Your task to perform on an android device: set an alarm Image 0: 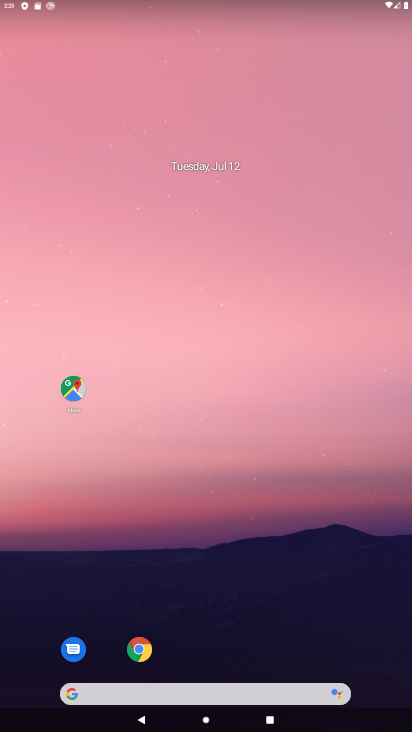
Step 0: drag from (217, 571) to (247, 238)
Your task to perform on an android device: set an alarm Image 1: 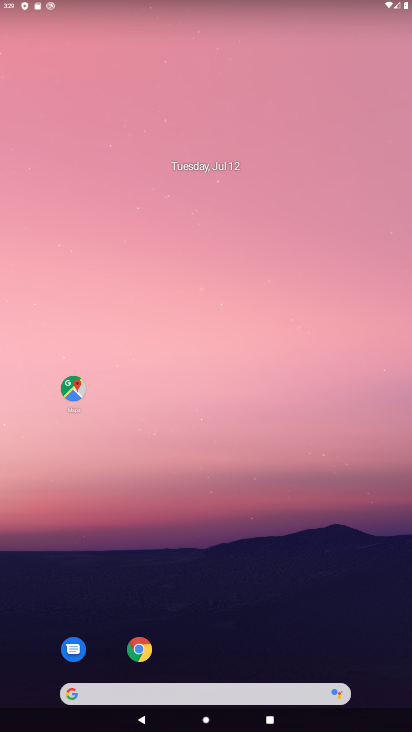
Step 1: drag from (201, 687) to (194, 133)
Your task to perform on an android device: set an alarm Image 2: 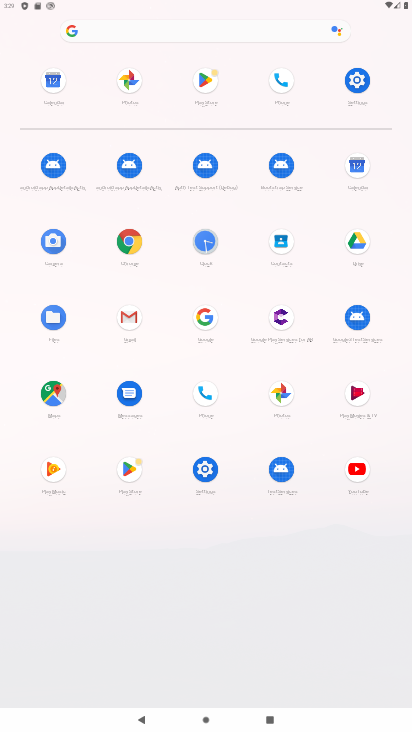
Step 2: click (199, 246)
Your task to perform on an android device: set an alarm Image 3: 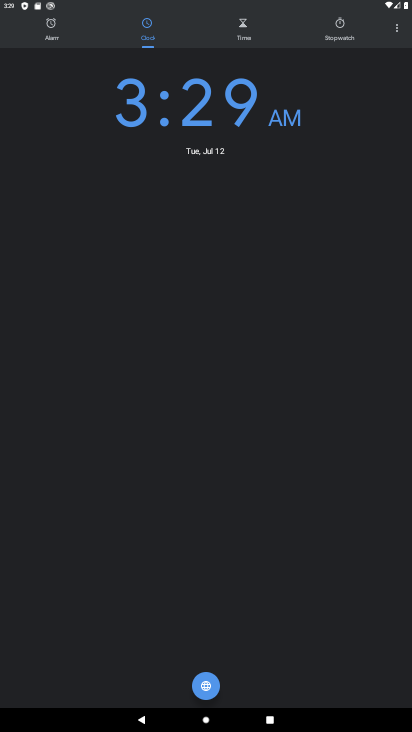
Step 3: click (59, 37)
Your task to perform on an android device: set an alarm Image 4: 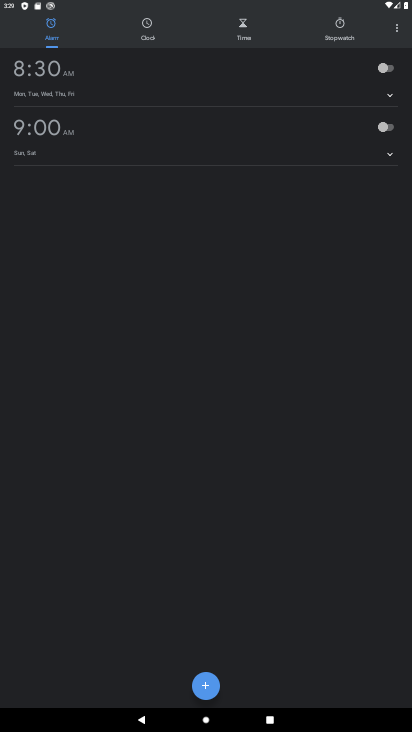
Step 4: click (213, 683)
Your task to perform on an android device: set an alarm Image 5: 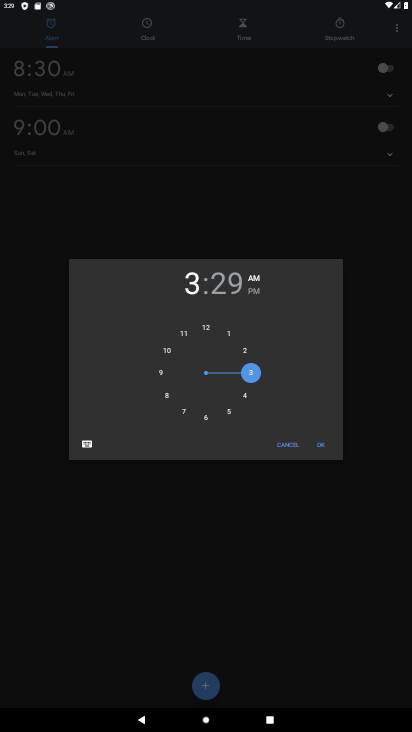
Step 5: click (187, 332)
Your task to perform on an android device: set an alarm Image 6: 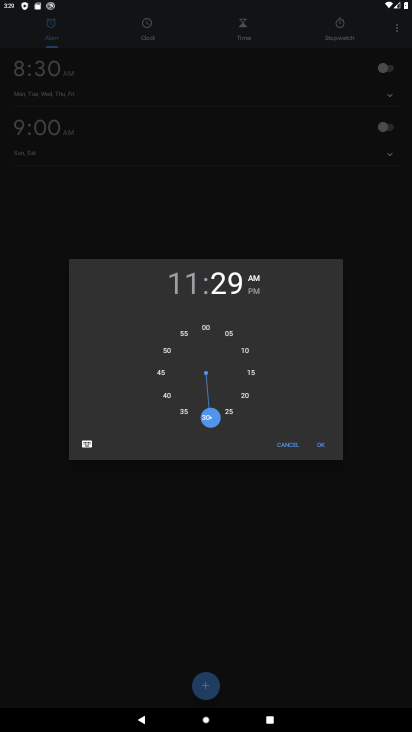
Step 6: click (210, 333)
Your task to perform on an android device: set an alarm Image 7: 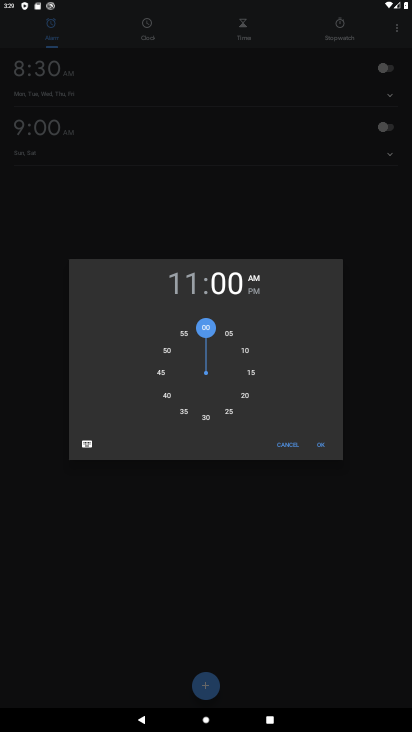
Step 7: click (250, 292)
Your task to perform on an android device: set an alarm Image 8: 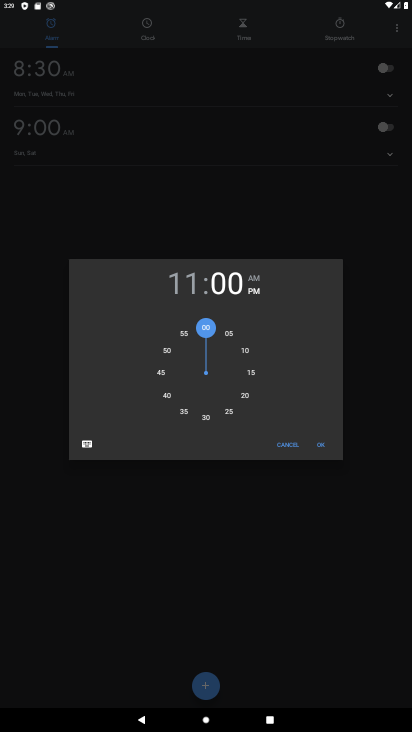
Step 8: click (322, 450)
Your task to perform on an android device: set an alarm Image 9: 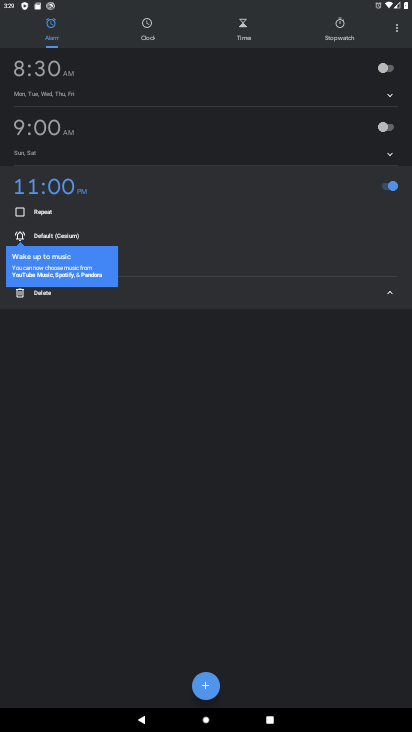
Step 9: task complete